Your task to perform on an android device: change text size in settings app Image 0: 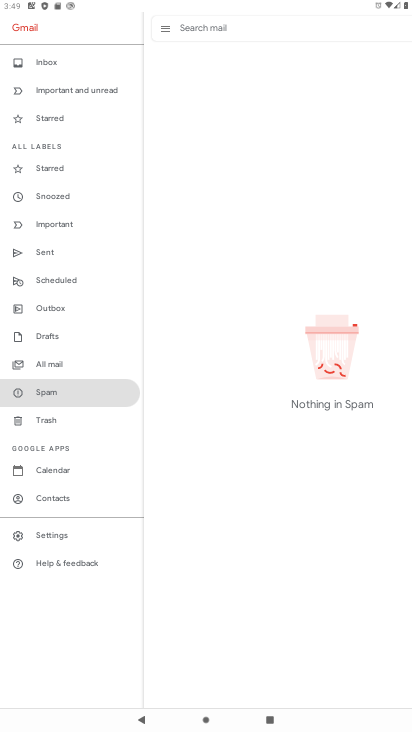
Step 0: press home button
Your task to perform on an android device: change text size in settings app Image 1: 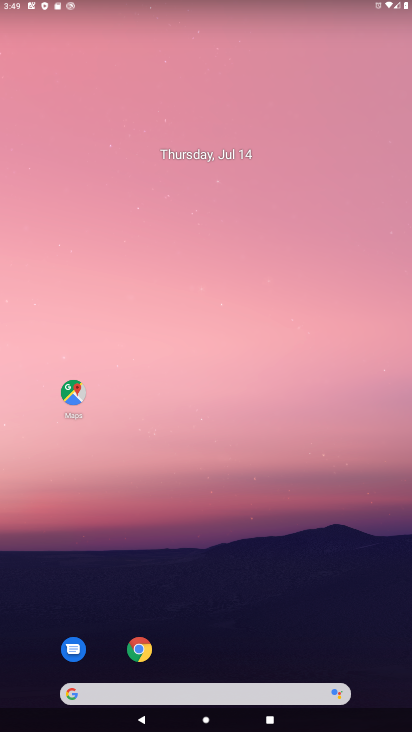
Step 1: drag from (225, 630) to (198, 0)
Your task to perform on an android device: change text size in settings app Image 2: 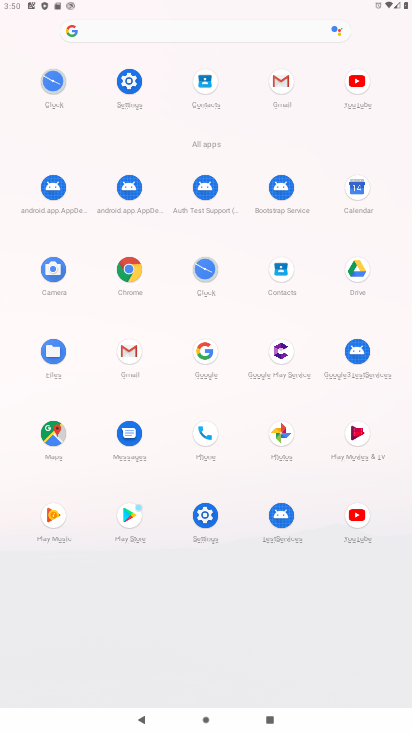
Step 2: click (204, 525)
Your task to perform on an android device: change text size in settings app Image 3: 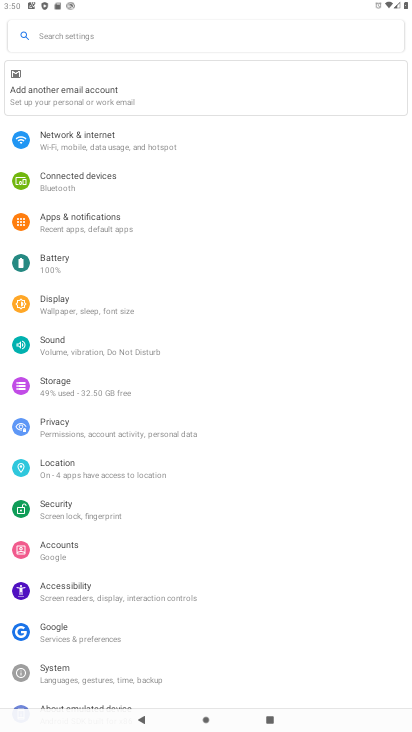
Step 3: click (91, 311)
Your task to perform on an android device: change text size in settings app Image 4: 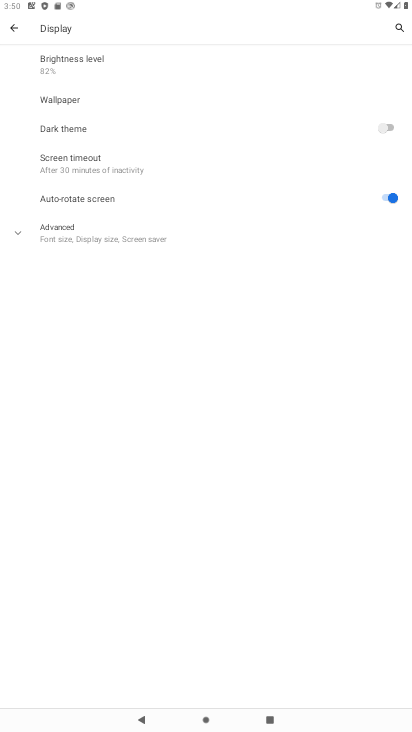
Step 4: click (79, 239)
Your task to perform on an android device: change text size in settings app Image 5: 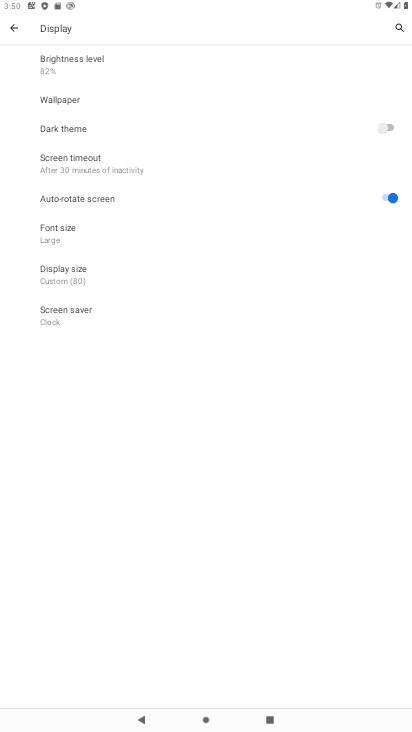
Step 5: click (75, 233)
Your task to perform on an android device: change text size in settings app Image 6: 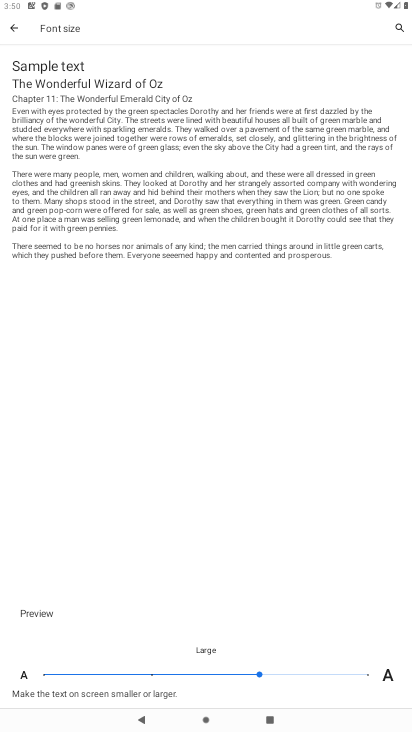
Step 6: click (365, 669)
Your task to perform on an android device: change text size in settings app Image 7: 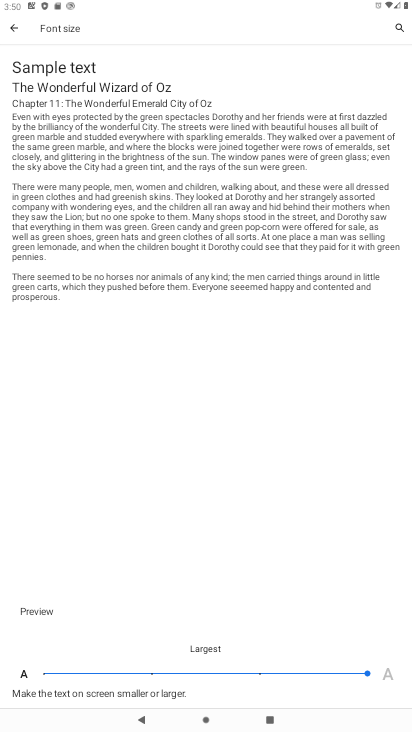
Step 7: task complete